Your task to perform on an android device: set an alarm Image 0: 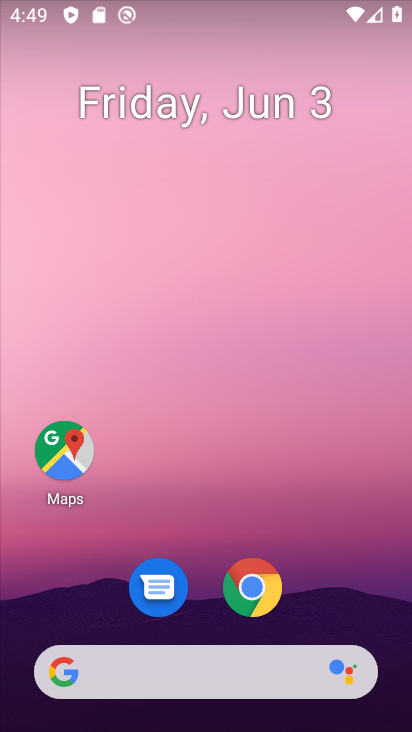
Step 0: drag from (134, 730) to (137, 101)
Your task to perform on an android device: set an alarm Image 1: 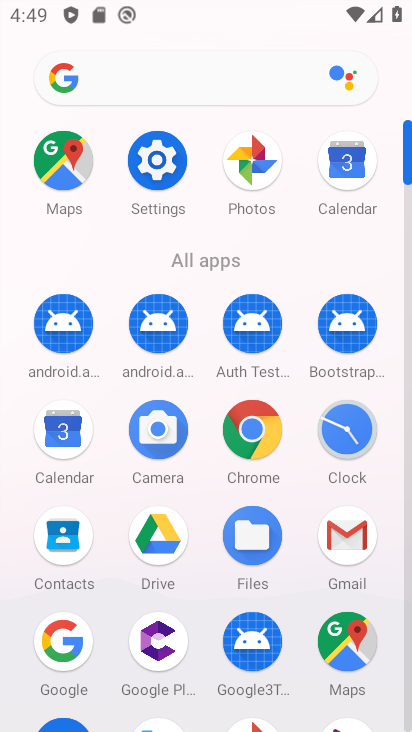
Step 1: click (336, 438)
Your task to perform on an android device: set an alarm Image 2: 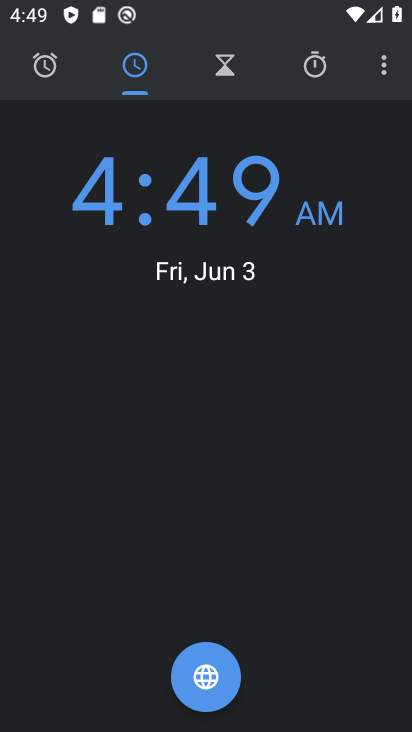
Step 2: click (44, 72)
Your task to perform on an android device: set an alarm Image 3: 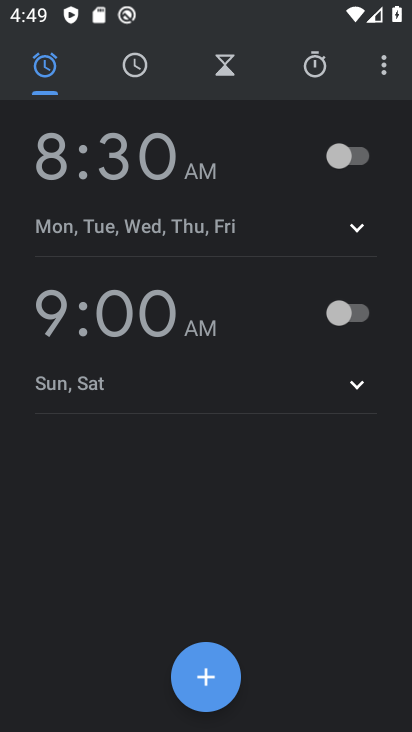
Step 3: click (349, 156)
Your task to perform on an android device: set an alarm Image 4: 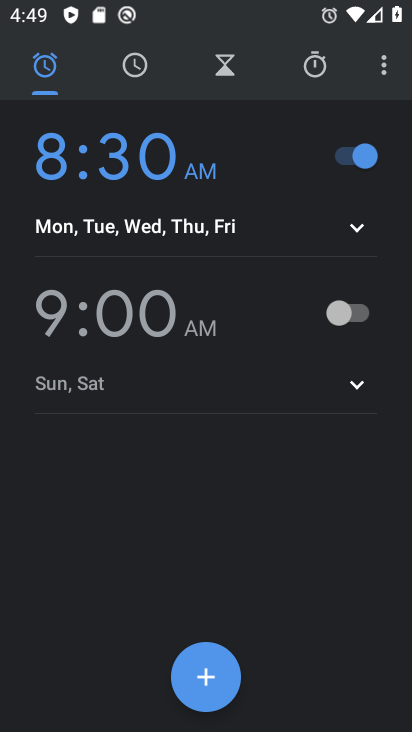
Step 4: task complete